Your task to perform on an android device: turn on sleep mode Image 0: 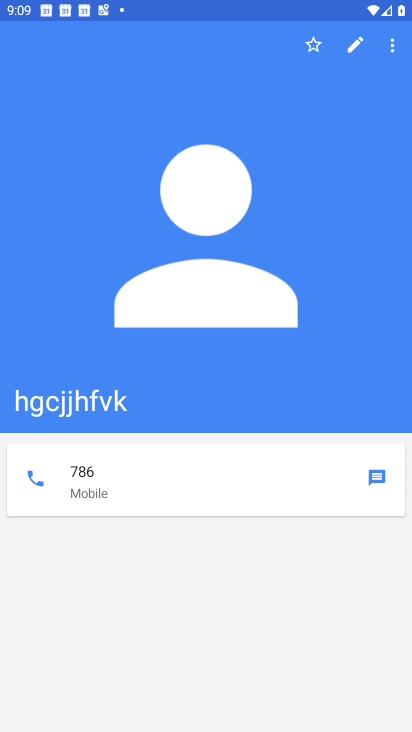
Step 0: press home button
Your task to perform on an android device: turn on sleep mode Image 1: 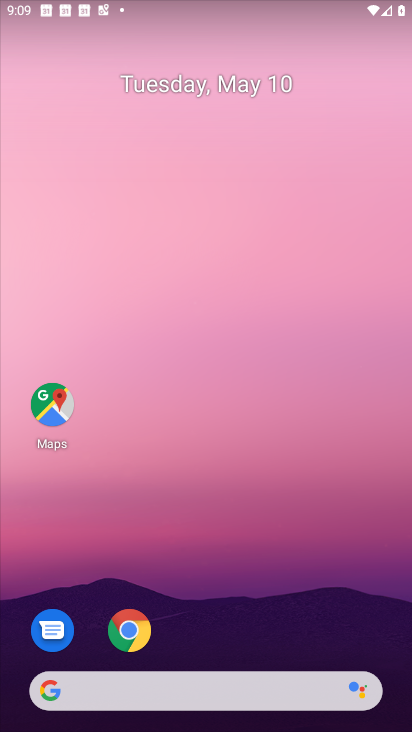
Step 1: drag from (199, 729) to (196, 20)
Your task to perform on an android device: turn on sleep mode Image 2: 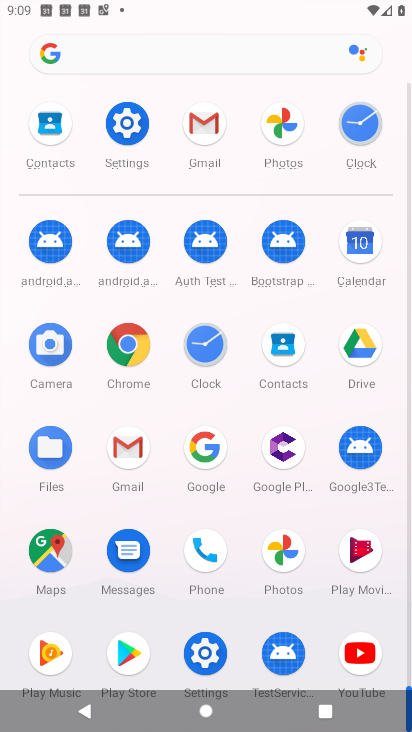
Step 2: click (105, 137)
Your task to perform on an android device: turn on sleep mode Image 3: 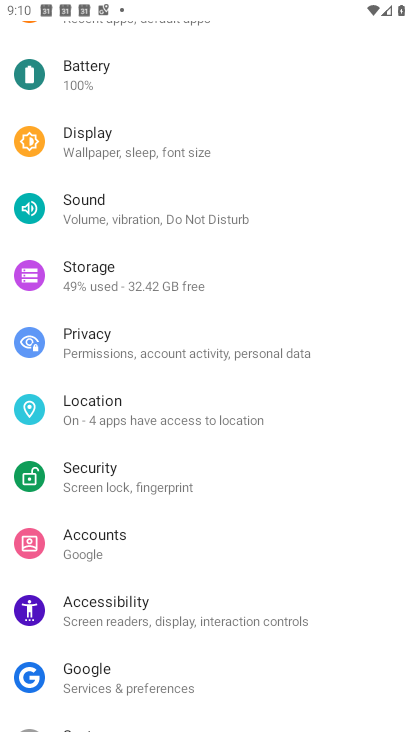
Step 3: click (87, 132)
Your task to perform on an android device: turn on sleep mode Image 4: 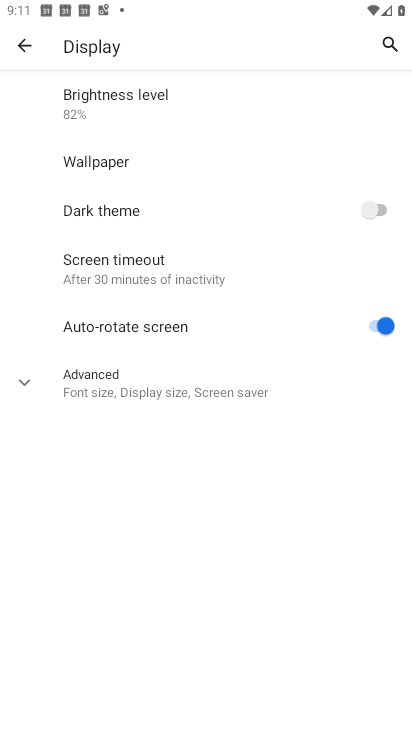
Step 4: task complete